Your task to perform on an android device: turn pop-ups on in chrome Image 0: 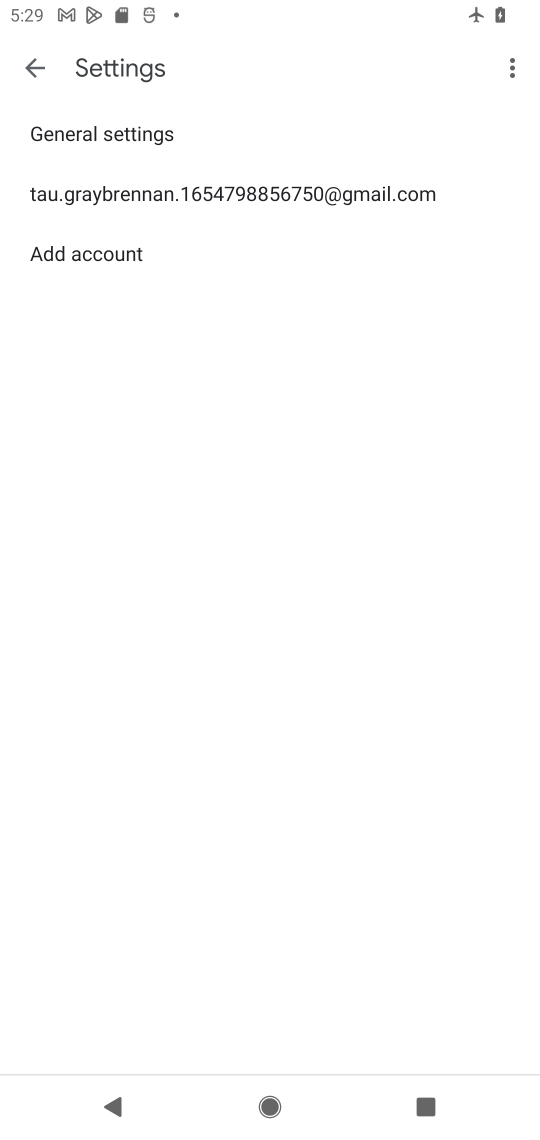
Step 0: task complete